Your task to perform on an android device: Go to CNN.com Image 0: 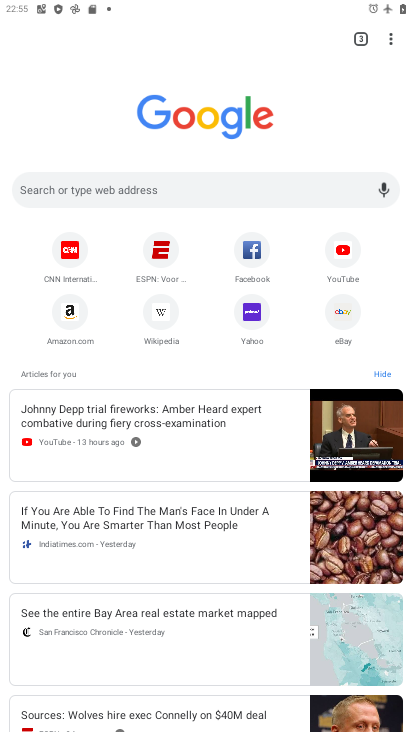
Step 0: click (58, 243)
Your task to perform on an android device: Go to CNN.com Image 1: 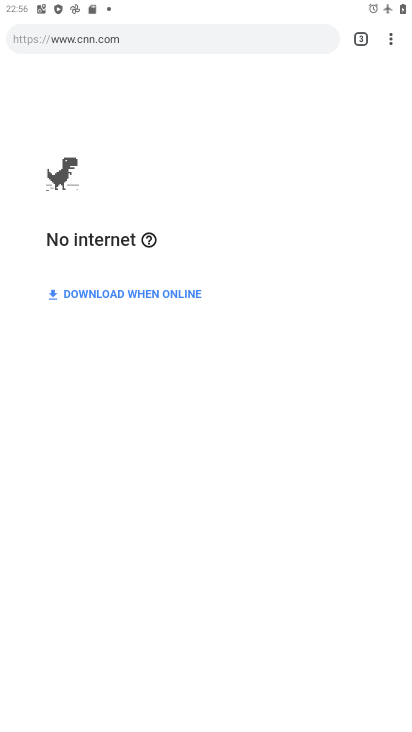
Step 1: task complete